Your task to perform on an android device: Open privacy settings Image 0: 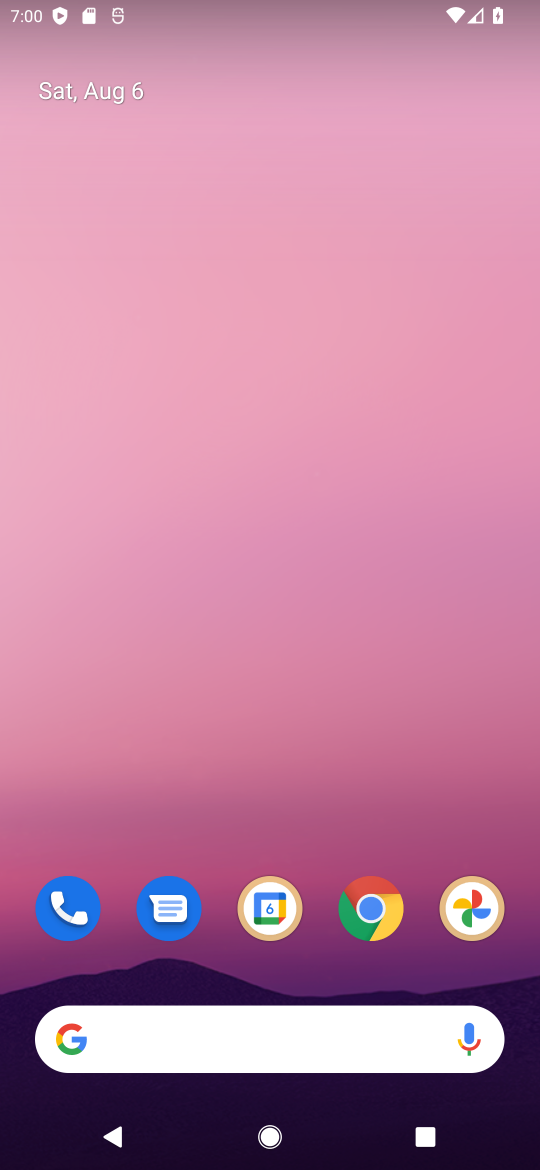
Step 0: drag from (401, 850) to (278, 262)
Your task to perform on an android device: Open privacy settings Image 1: 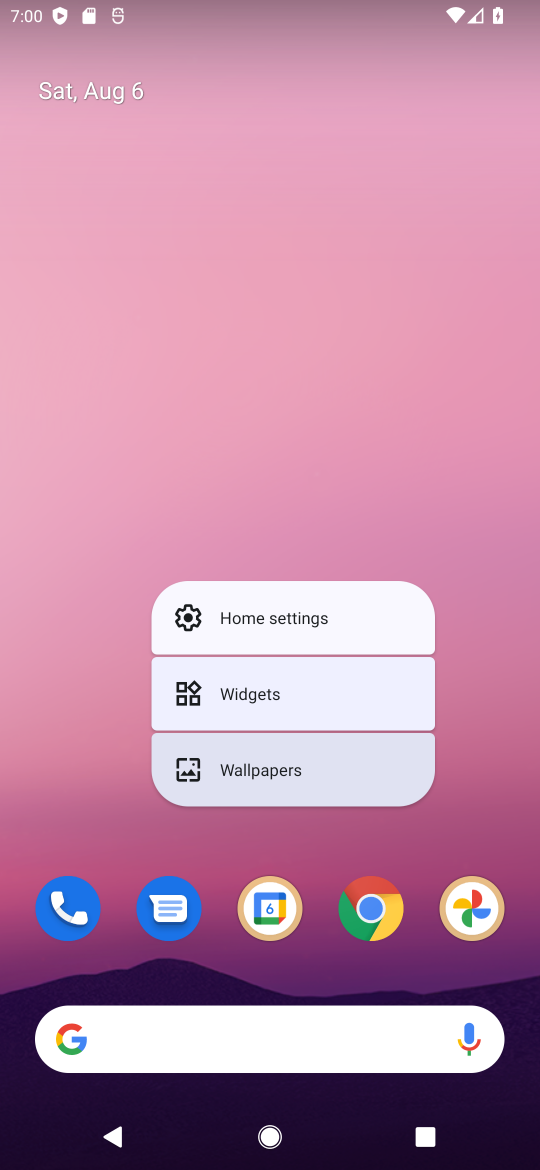
Step 1: click (507, 787)
Your task to perform on an android device: Open privacy settings Image 2: 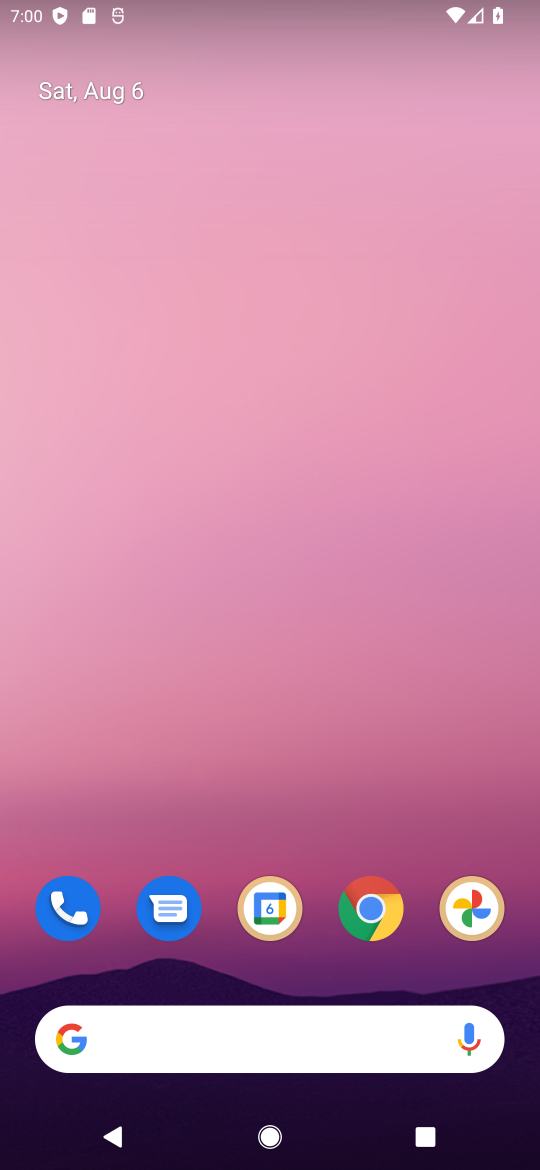
Step 2: click (445, 819)
Your task to perform on an android device: Open privacy settings Image 3: 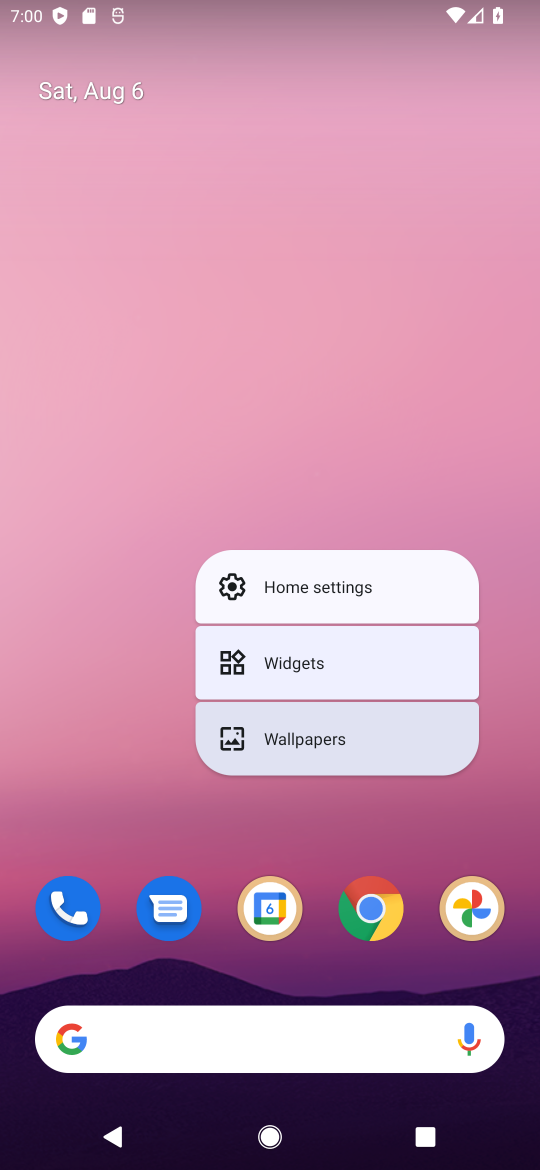
Step 3: click (445, 819)
Your task to perform on an android device: Open privacy settings Image 4: 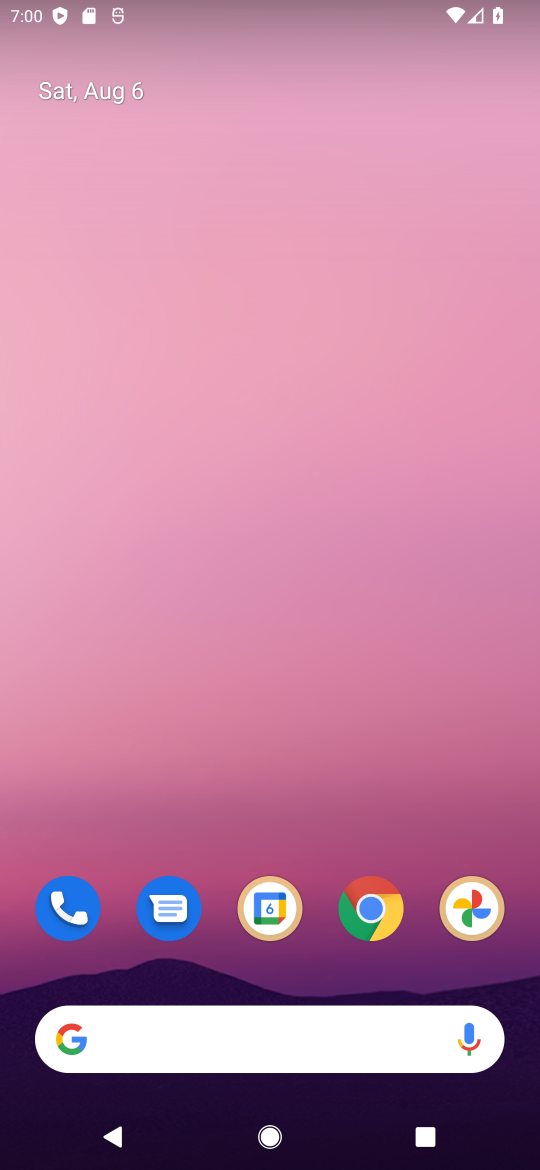
Step 4: drag from (416, 859) to (419, 164)
Your task to perform on an android device: Open privacy settings Image 5: 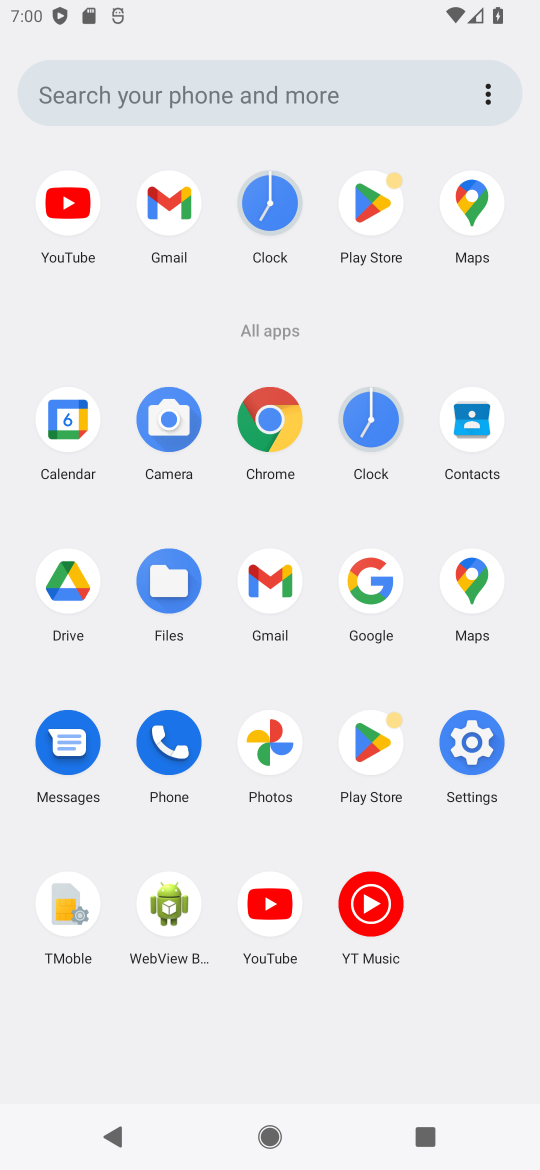
Step 5: click (470, 764)
Your task to perform on an android device: Open privacy settings Image 6: 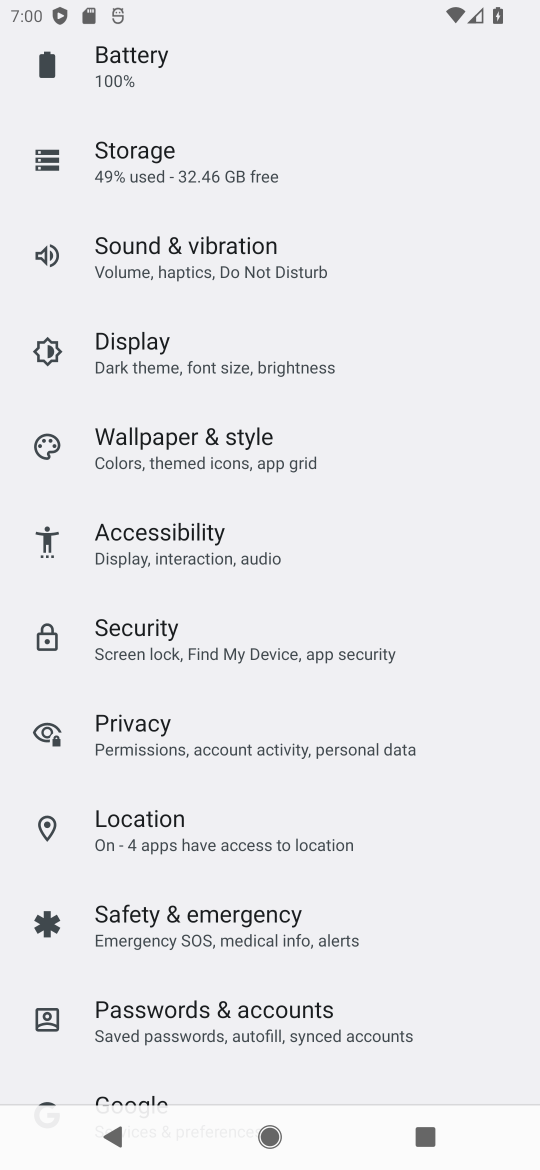
Step 6: click (158, 743)
Your task to perform on an android device: Open privacy settings Image 7: 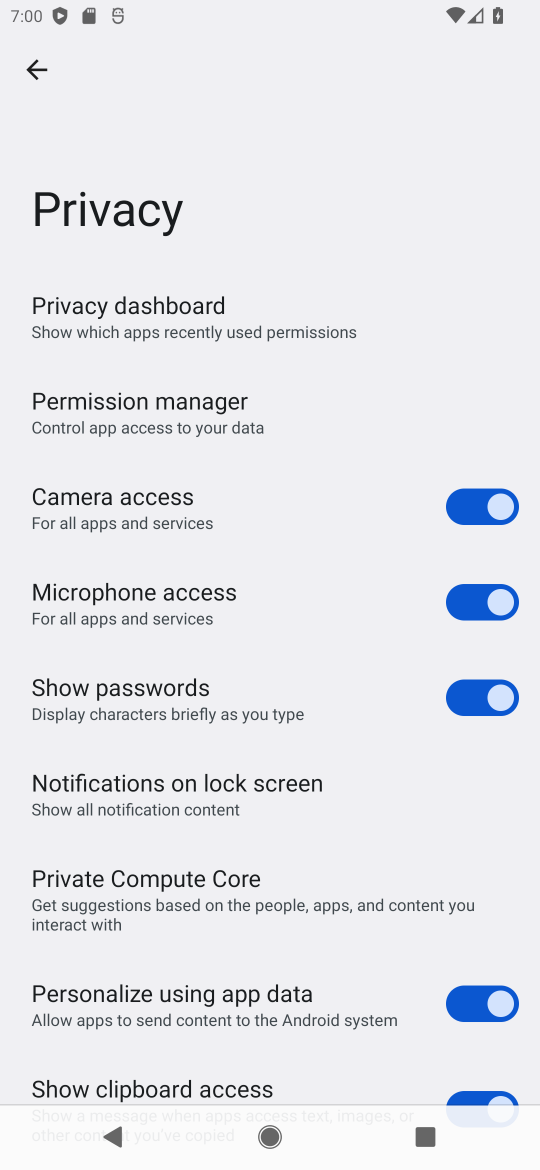
Step 7: task complete